Your task to perform on an android device: see creations saved in the google photos Image 0: 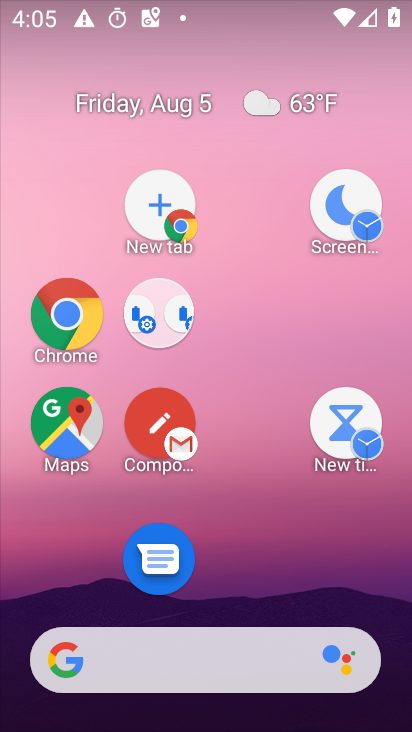
Step 0: drag from (246, 598) to (220, 192)
Your task to perform on an android device: see creations saved in the google photos Image 1: 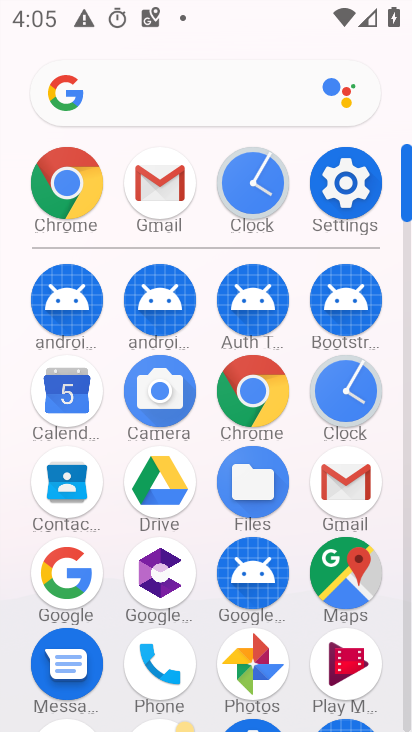
Step 1: click (253, 659)
Your task to perform on an android device: see creations saved in the google photos Image 2: 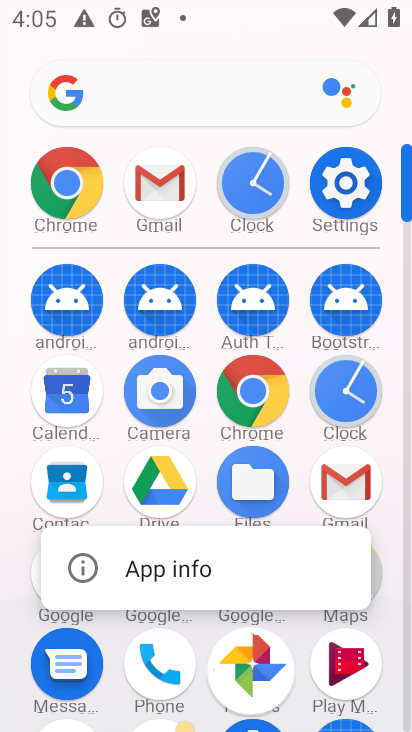
Step 2: click (252, 666)
Your task to perform on an android device: see creations saved in the google photos Image 3: 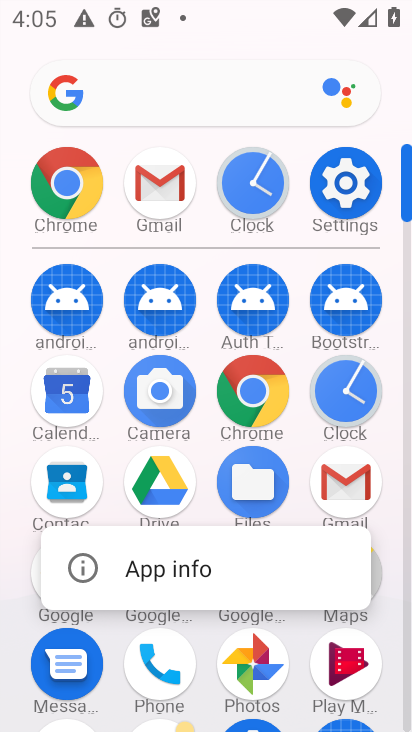
Step 3: click (247, 667)
Your task to perform on an android device: see creations saved in the google photos Image 4: 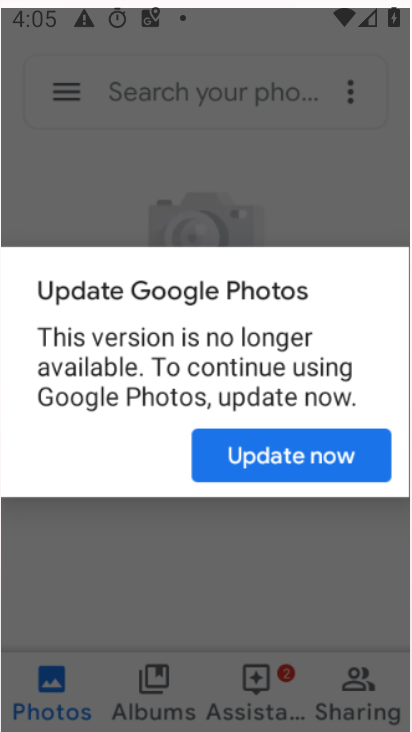
Step 4: click (247, 667)
Your task to perform on an android device: see creations saved in the google photos Image 5: 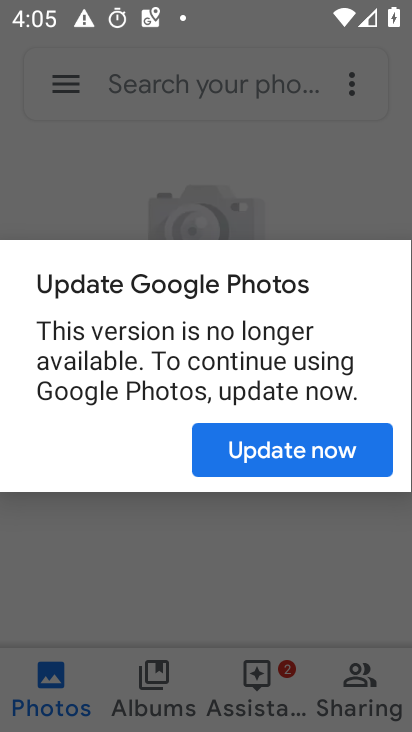
Step 5: click (264, 149)
Your task to perform on an android device: see creations saved in the google photos Image 6: 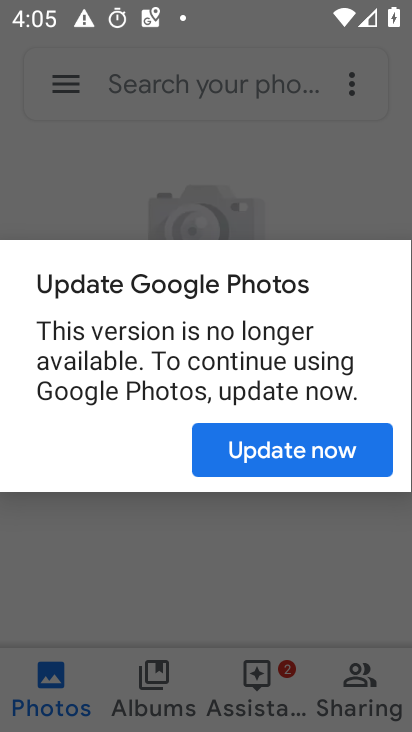
Step 6: click (289, 175)
Your task to perform on an android device: see creations saved in the google photos Image 7: 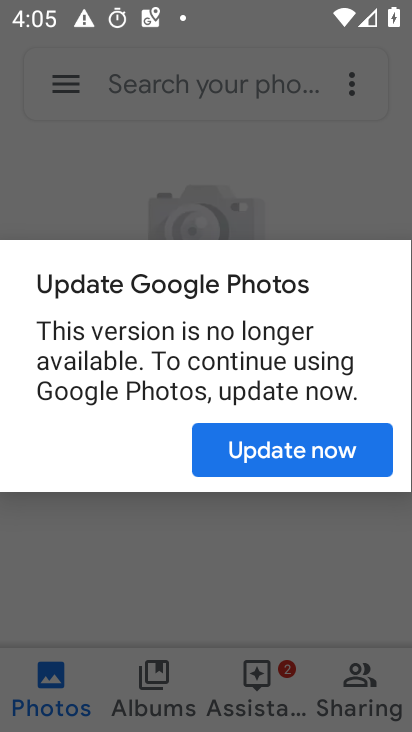
Step 7: click (290, 178)
Your task to perform on an android device: see creations saved in the google photos Image 8: 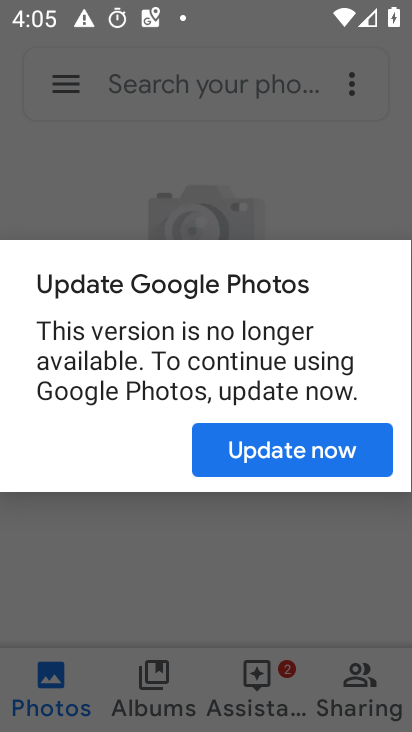
Step 8: click (209, 538)
Your task to perform on an android device: see creations saved in the google photos Image 9: 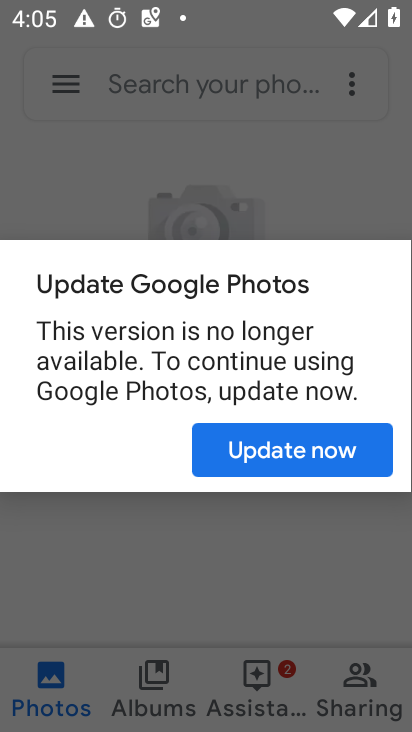
Step 9: click (186, 510)
Your task to perform on an android device: see creations saved in the google photos Image 10: 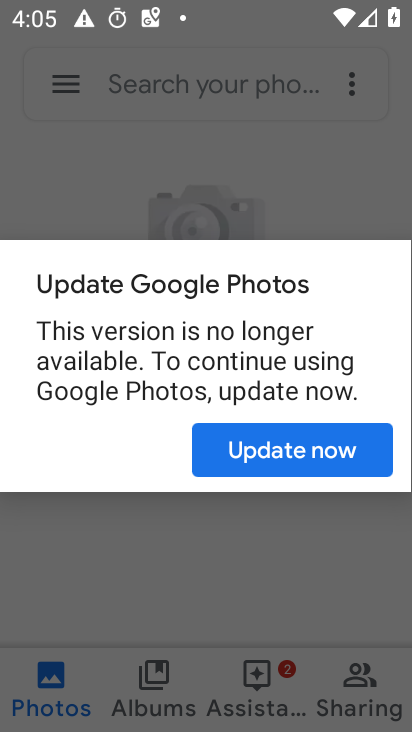
Step 10: click (320, 446)
Your task to perform on an android device: see creations saved in the google photos Image 11: 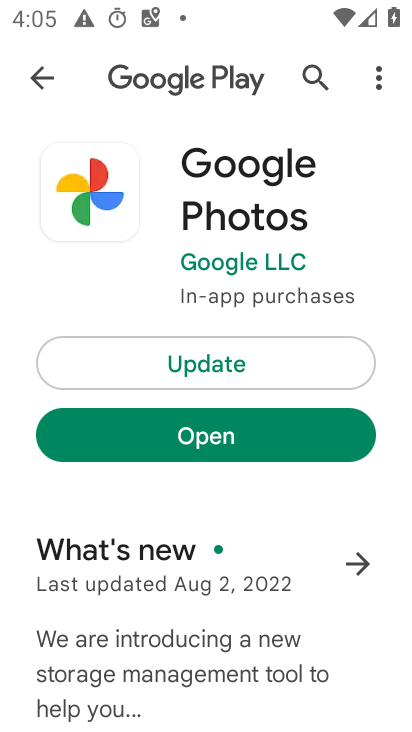
Step 11: click (242, 436)
Your task to perform on an android device: see creations saved in the google photos Image 12: 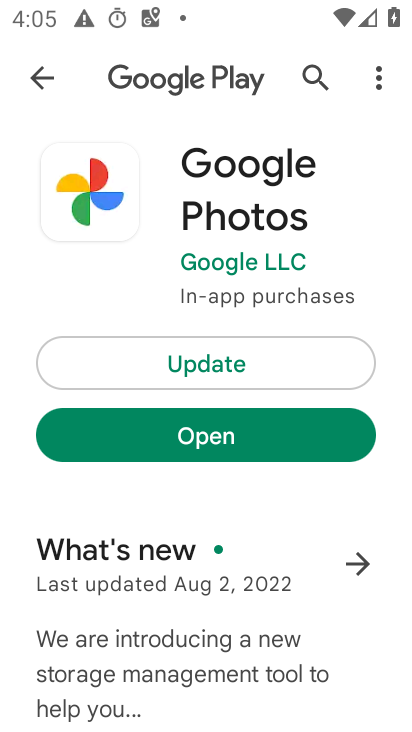
Step 12: click (241, 437)
Your task to perform on an android device: see creations saved in the google photos Image 13: 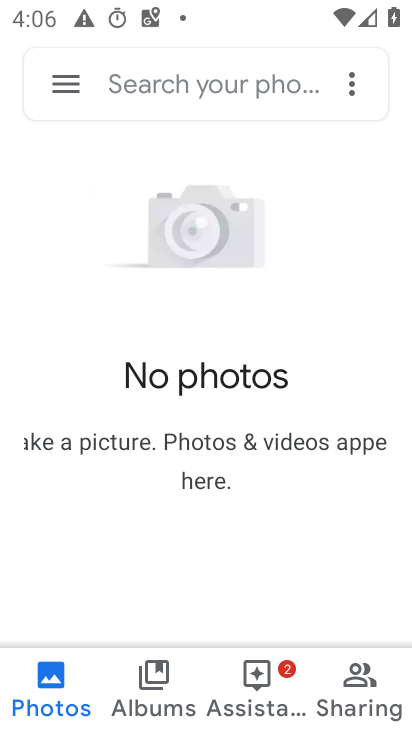
Step 13: press back button
Your task to perform on an android device: see creations saved in the google photos Image 14: 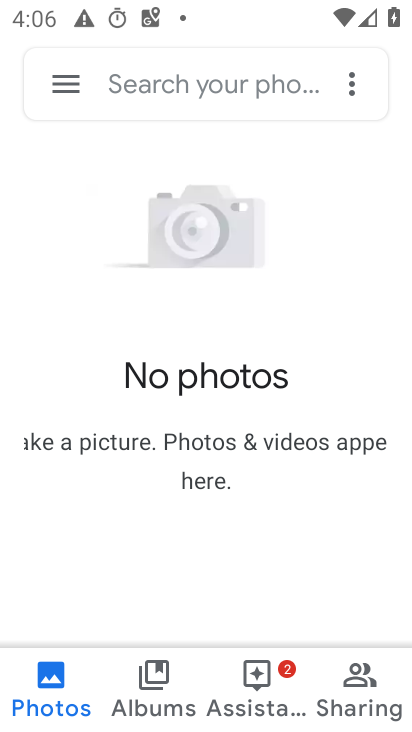
Step 14: press back button
Your task to perform on an android device: see creations saved in the google photos Image 15: 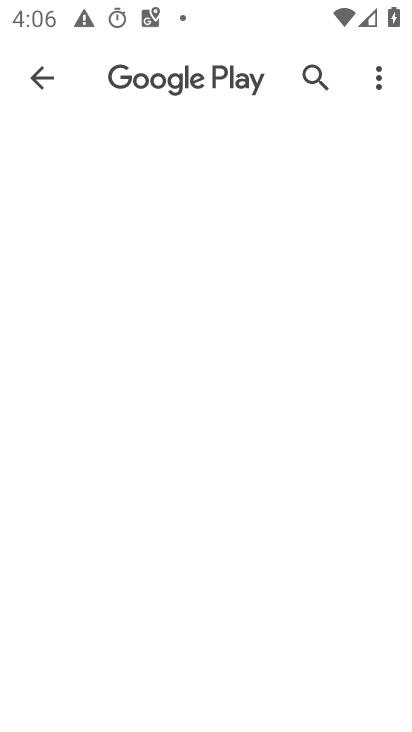
Step 15: press back button
Your task to perform on an android device: see creations saved in the google photos Image 16: 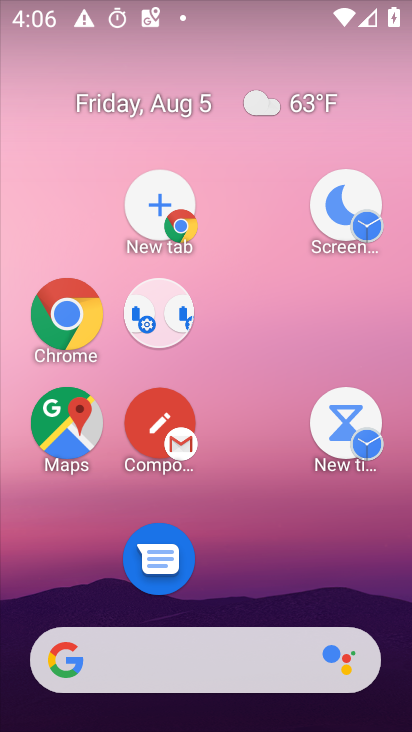
Step 16: press home button
Your task to perform on an android device: see creations saved in the google photos Image 17: 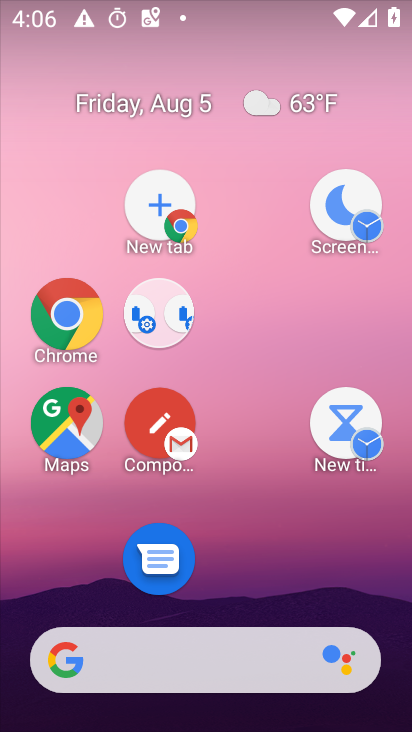
Step 17: drag from (169, 618) to (90, 94)
Your task to perform on an android device: see creations saved in the google photos Image 18: 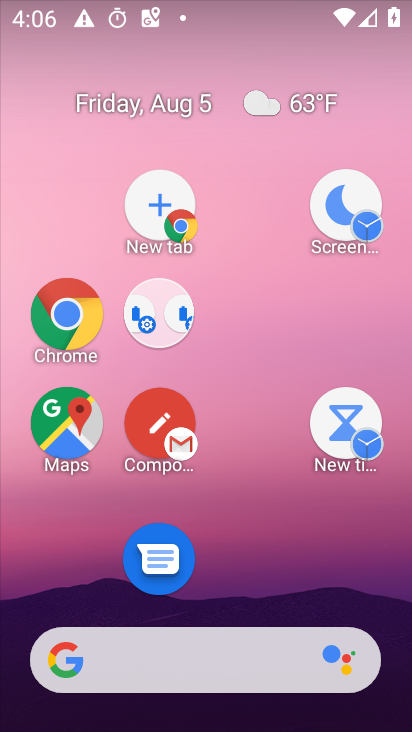
Step 18: drag from (208, 336) to (203, 142)
Your task to perform on an android device: see creations saved in the google photos Image 19: 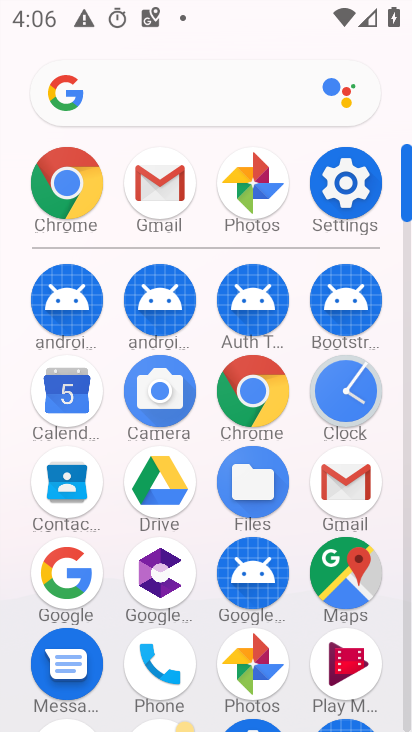
Step 19: drag from (243, 471) to (190, 163)
Your task to perform on an android device: see creations saved in the google photos Image 20: 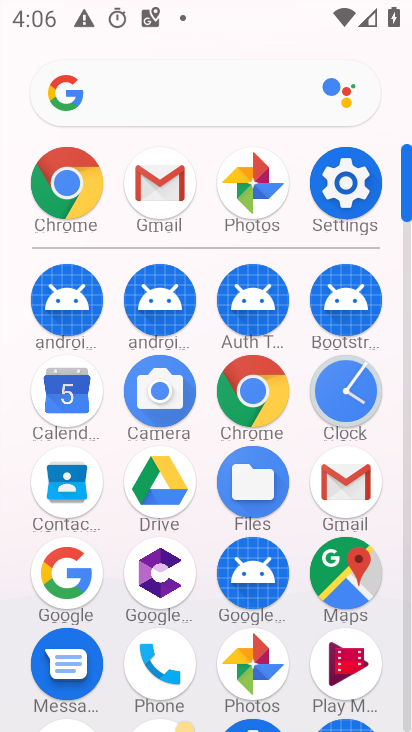
Step 20: click (238, 187)
Your task to perform on an android device: see creations saved in the google photos Image 21: 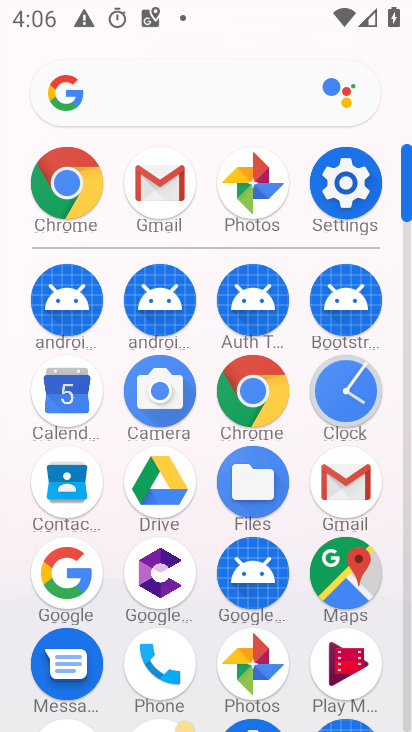
Step 21: click (239, 186)
Your task to perform on an android device: see creations saved in the google photos Image 22: 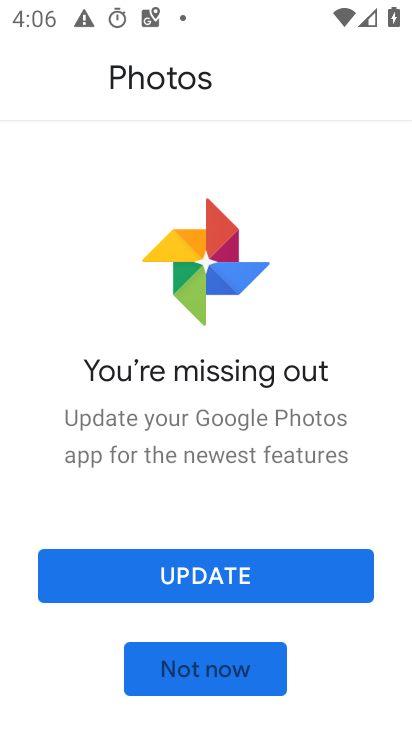
Step 22: click (206, 671)
Your task to perform on an android device: see creations saved in the google photos Image 23: 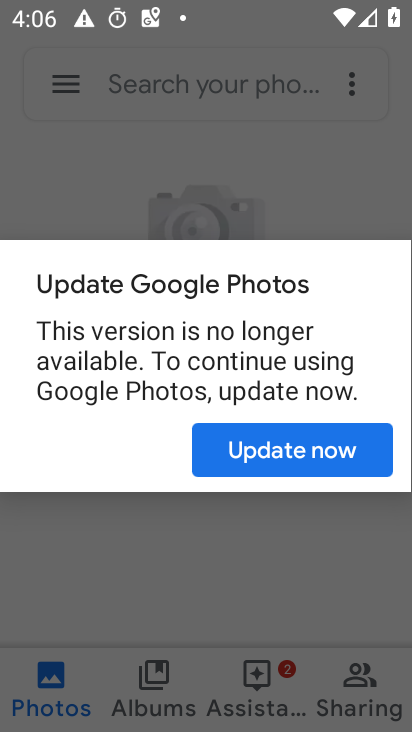
Step 23: click (203, 143)
Your task to perform on an android device: see creations saved in the google photos Image 24: 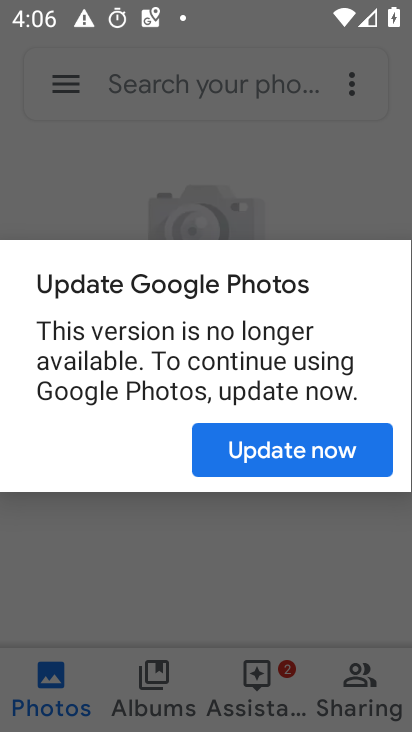
Step 24: click (134, 210)
Your task to perform on an android device: see creations saved in the google photos Image 25: 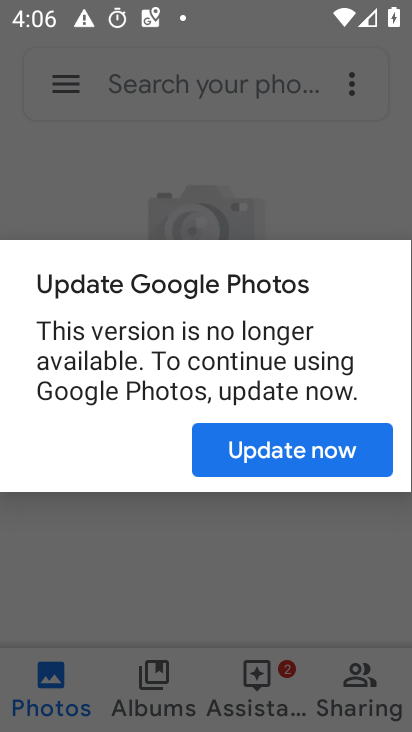
Step 25: click (134, 210)
Your task to perform on an android device: see creations saved in the google photos Image 26: 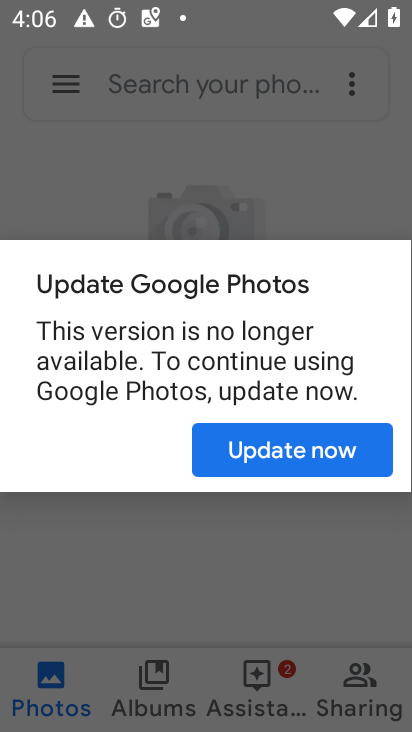
Step 26: click (231, 196)
Your task to perform on an android device: see creations saved in the google photos Image 27: 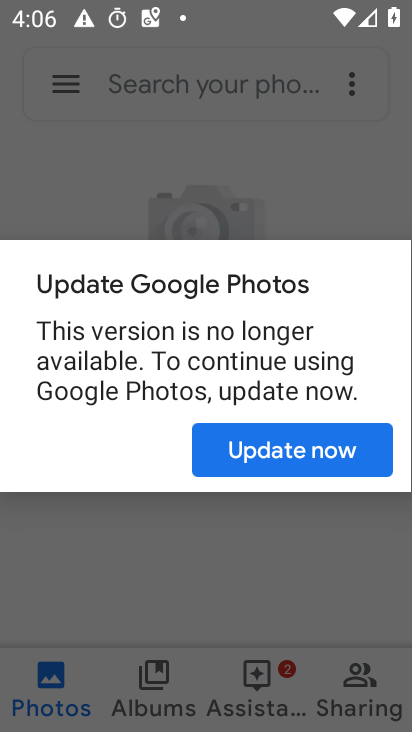
Step 27: click (240, 178)
Your task to perform on an android device: see creations saved in the google photos Image 28: 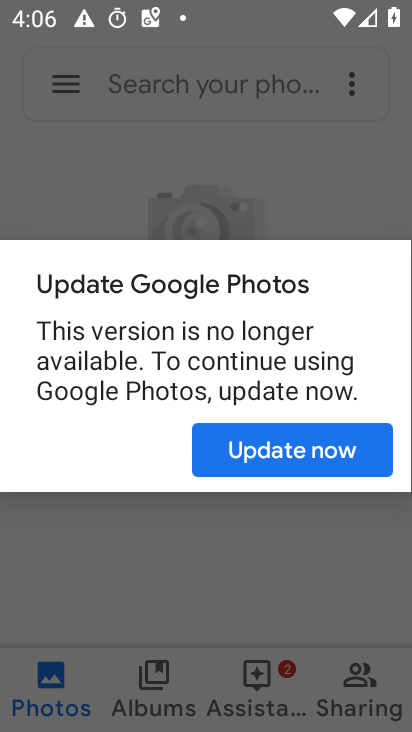
Step 28: click (242, 176)
Your task to perform on an android device: see creations saved in the google photos Image 29: 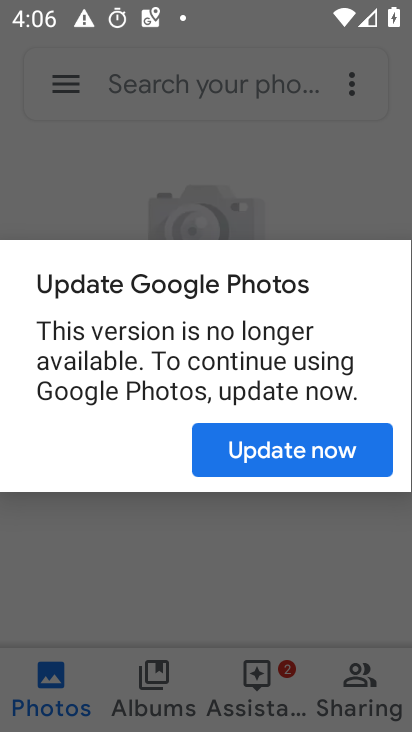
Step 29: click (245, 170)
Your task to perform on an android device: see creations saved in the google photos Image 30: 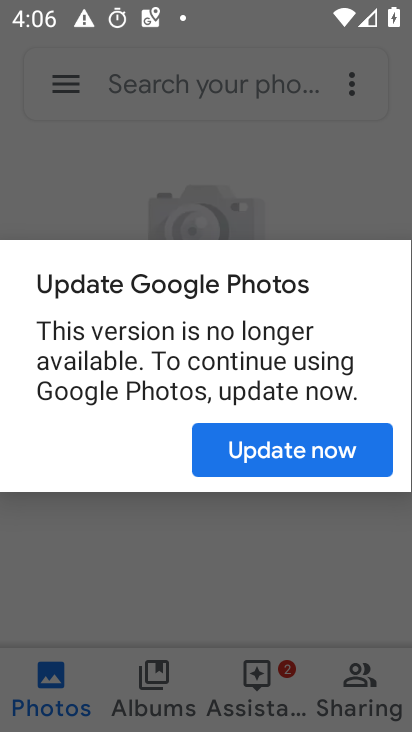
Step 30: click (245, 170)
Your task to perform on an android device: see creations saved in the google photos Image 31: 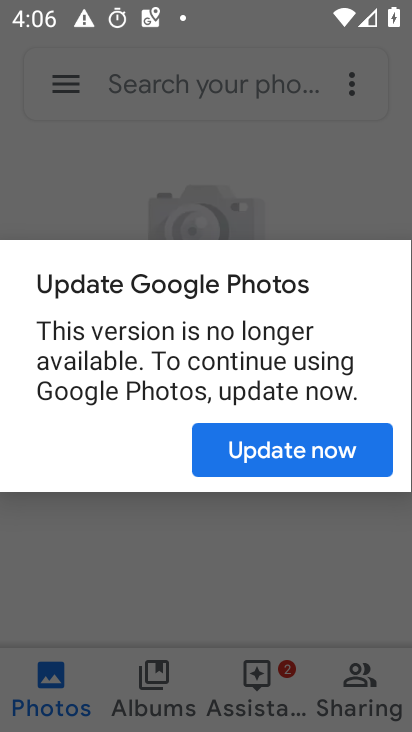
Step 31: click (245, 170)
Your task to perform on an android device: see creations saved in the google photos Image 32: 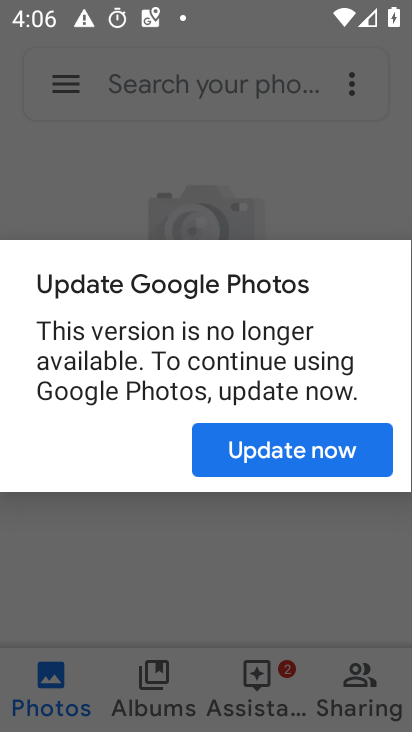
Step 32: click (245, 170)
Your task to perform on an android device: see creations saved in the google photos Image 33: 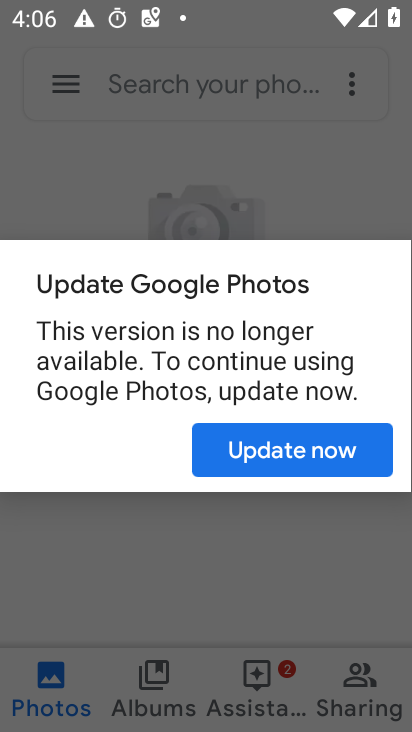
Step 33: drag from (151, 515) to (113, 50)
Your task to perform on an android device: see creations saved in the google photos Image 34: 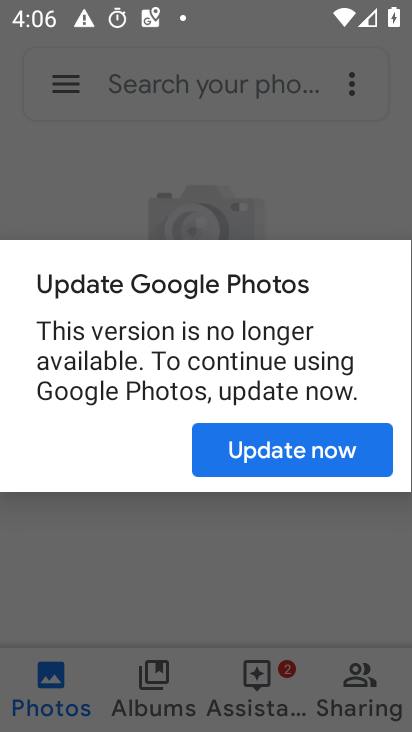
Step 34: click (298, 444)
Your task to perform on an android device: see creations saved in the google photos Image 35: 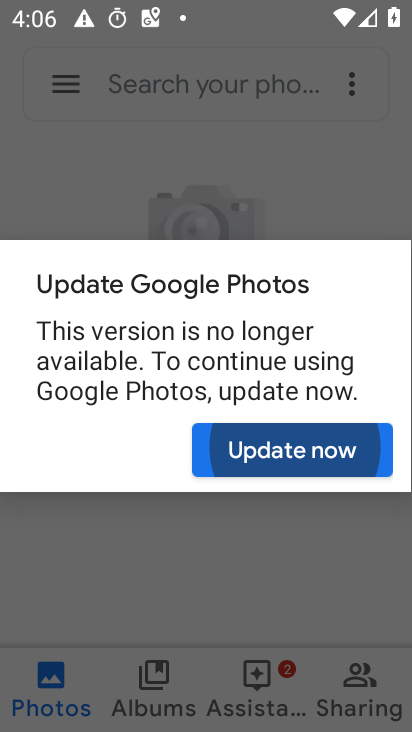
Step 35: click (298, 444)
Your task to perform on an android device: see creations saved in the google photos Image 36: 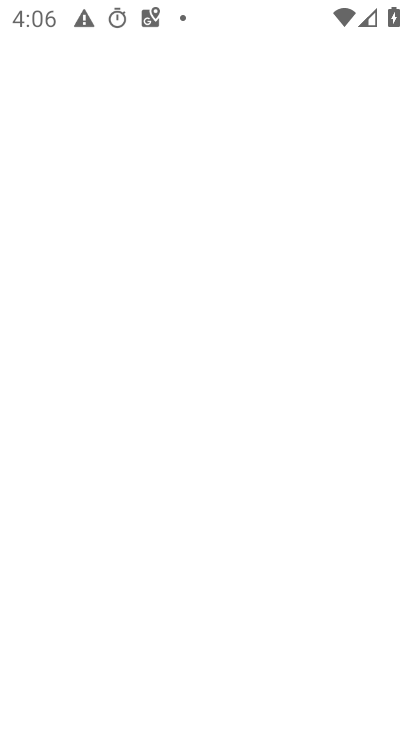
Step 36: click (298, 444)
Your task to perform on an android device: see creations saved in the google photos Image 37: 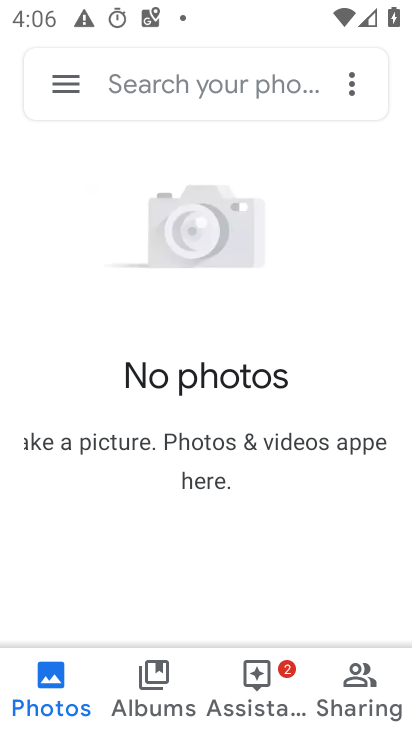
Step 37: task complete